Your task to perform on an android device: open app "Clock" Image 0: 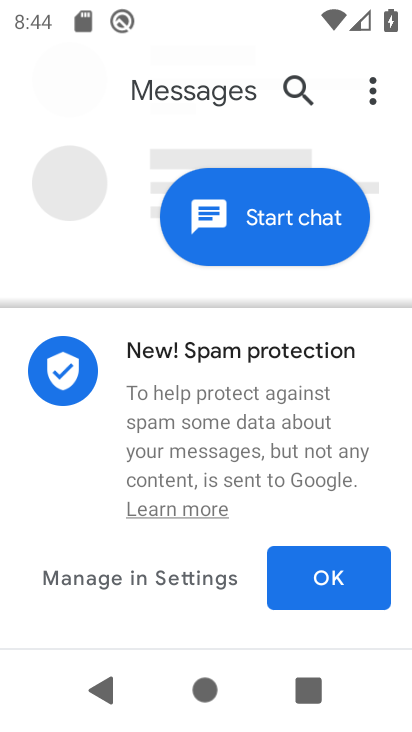
Step 0: press home button
Your task to perform on an android device: open app "Clock" Image 1: 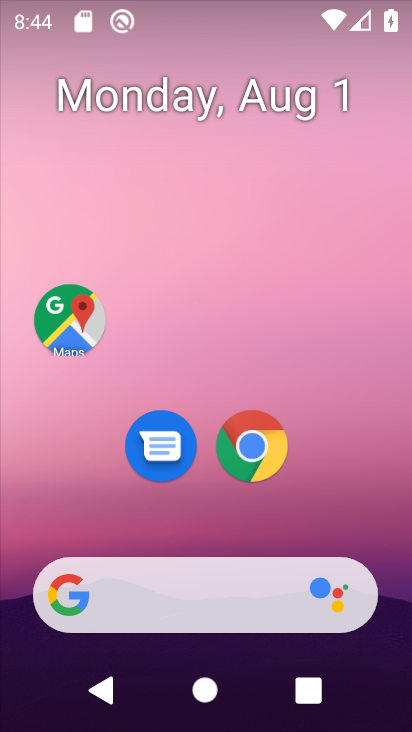
Step 1: drag from (198, 513) to (216, 52)
Your task to perform on an android device: open app "Clock" Image 2: 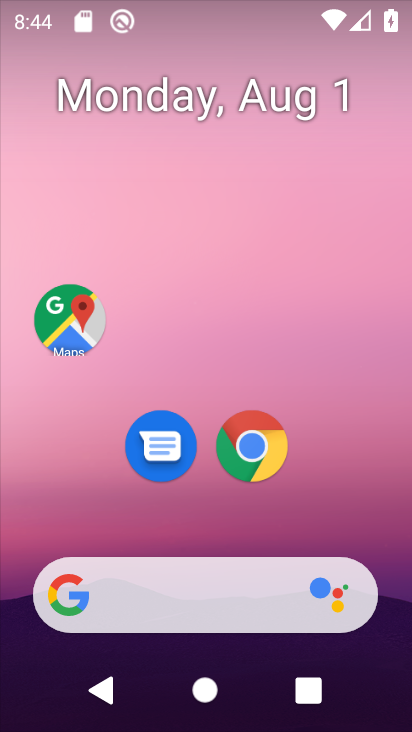
Step 2: drag from (199, 487) to (205, 91)
Your task to perform on an android device: open app "Clock" Image 3: 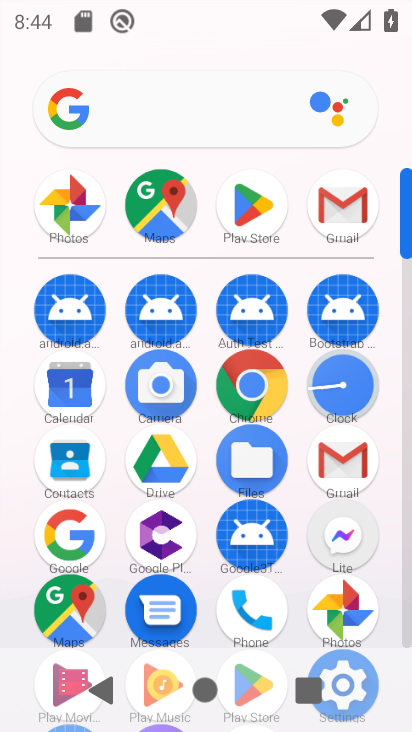
Step 3: click (253, 225)
Your task to perform on an android device: open app "Clock" Image 4: 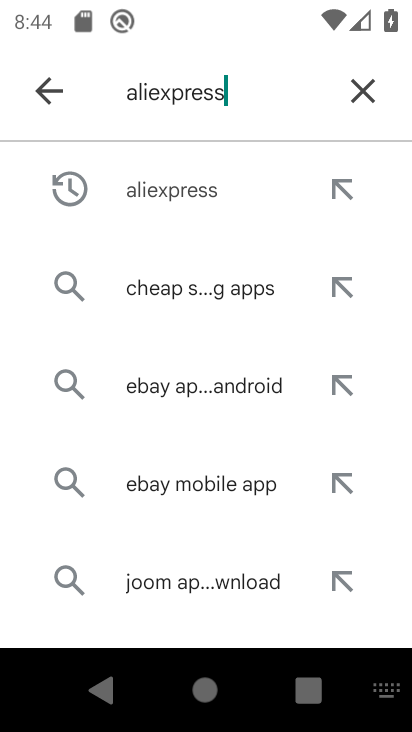
Step 4: click (362, 87)
Your task to perform on an android device: open app "Clock" Image 5: 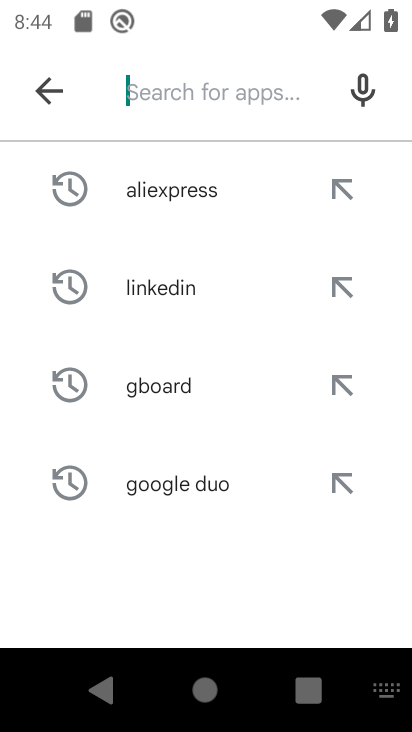
Step 5: type "Clock"
Your task to perform on an android device: open app "Clock" Image 6: 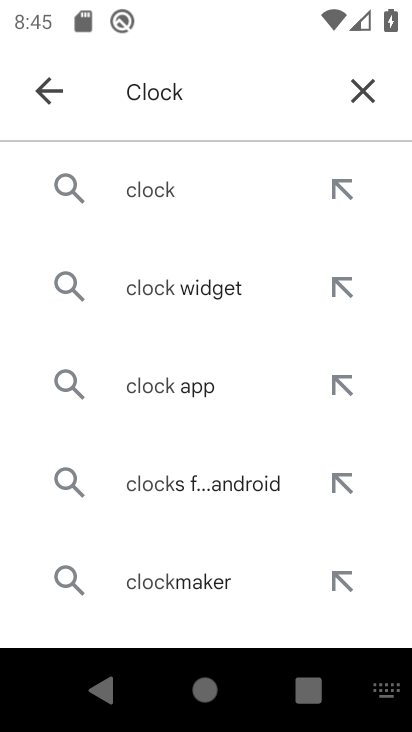
Step 6: click (144, 189)
Your task to perform on an android device: open app "Clock" Image 7: 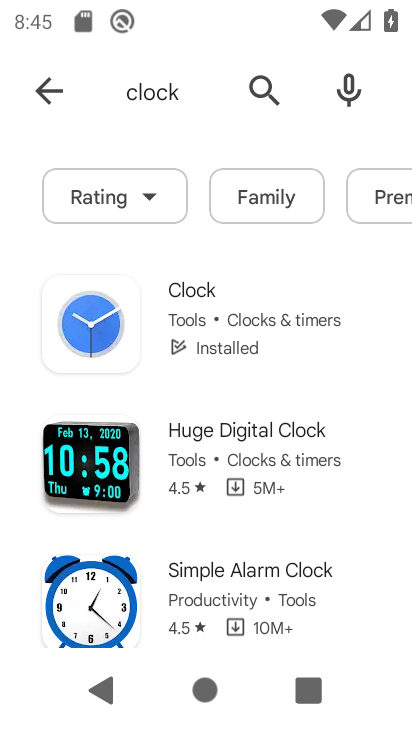
Step 7: click (167, 303)
Your task to perform on an android device: open app "Clock" Image 8: 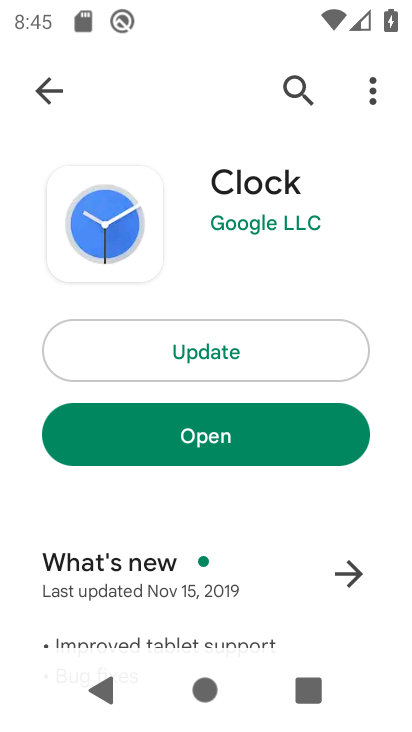
Step 8: click (287, 422)
Your task to perform on an android device: open app "Clock" Image 9: 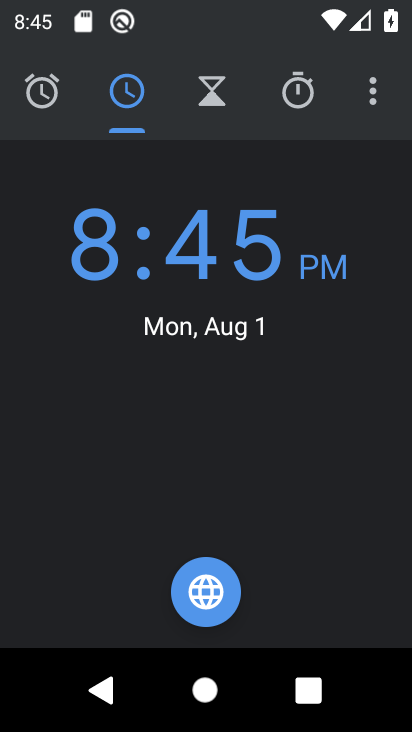
Step 9: task complete